Your task to perform on an android device: Search for flights from NYC to Tokyo Image 0: 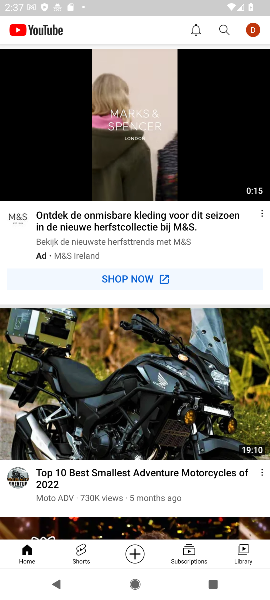
Step 0: press home button
Your task to perform on an android device: Search for flights from NYC to Tokyo Image 1: 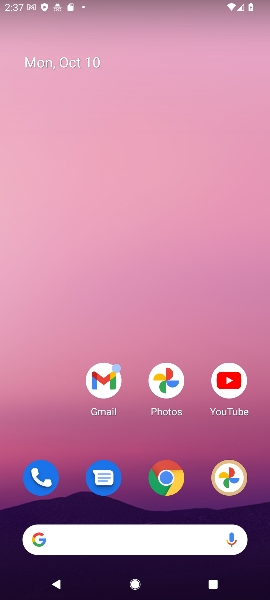
Step 1: click (161, 484)
Your task to perform on an android device: Search for flights from NYC to Tokyo Image 2: 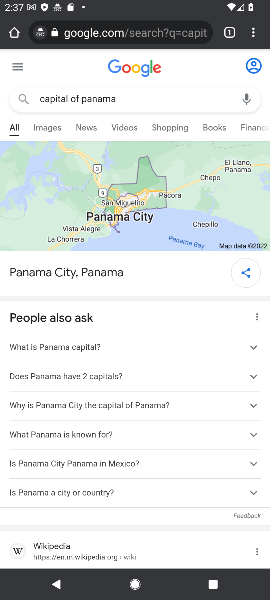
Step 2: click (163, 25)
Your task to perform on an android device: Search for flights from NYC to Tokyo Image 3: 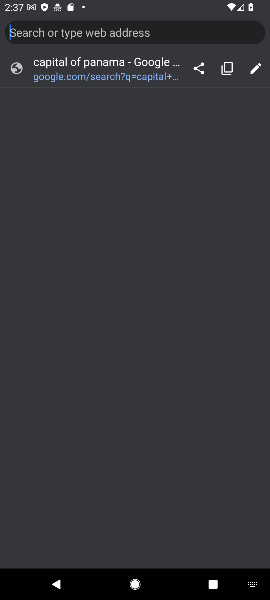
Step 3: type "flights from NYC to Tokyo"
Your task to perform on an android device: Search for flights from NYC to Tokyo Image 4: 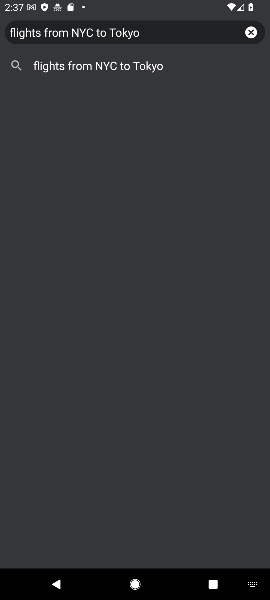
Step 4: click (53, 70)
Your task to perform on an android device: Search for flights from NYC to Tokyo Image 5: 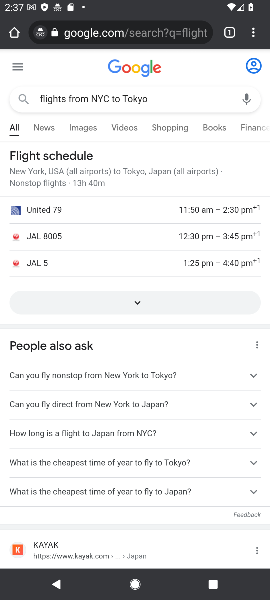
Step 5: click (40, 155)
Your task to perform on an android device: Search for flights from NYC to Tokyo Image 6: 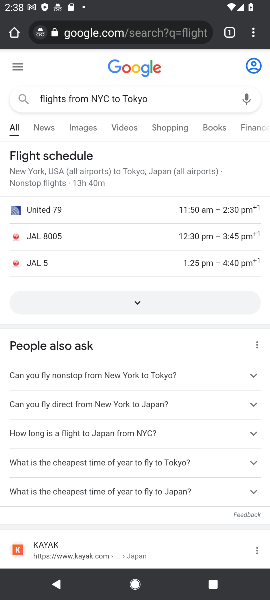
Step 6: click (49, 169)
Your task to perform on an android device: Search for flights from NYC to Tokyo Image 7: 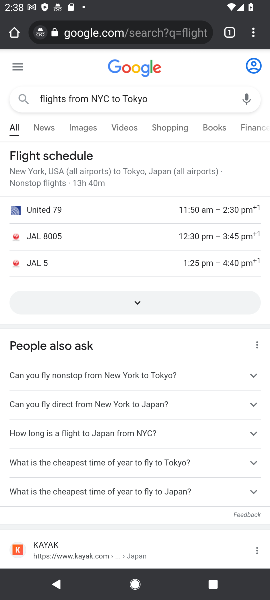
Step 7: click (129, 305)
Your task to perform on an android device: Search for flights from NYC to Tokyo Image 8: 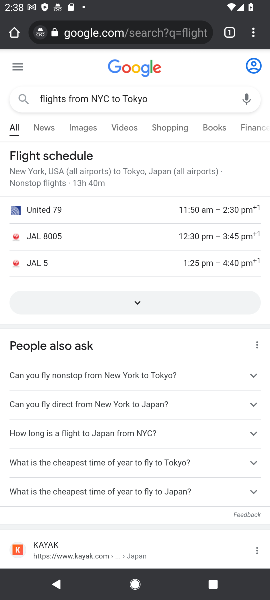
Step 8: click (129, 305)
Your task to perform on an android device: Search for flights from NYC to Tokyo Image 9: 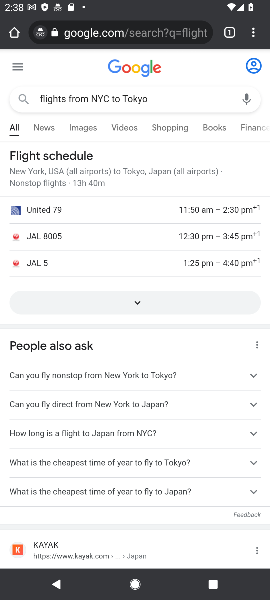
Step 9: click (129, 305)
Your task to perform on an android device: Search for flights from NYC to Tokyo Image 10: 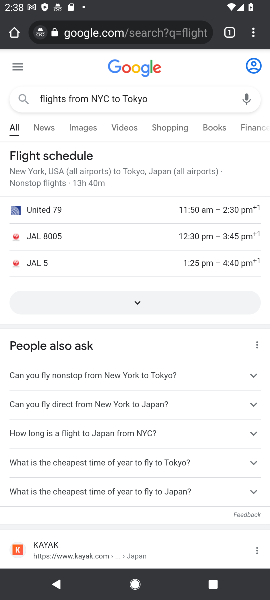
Step 10: click (48, 177)
Your task to perform on an android device: Search for flights from NYC to Tokyo Image 11: 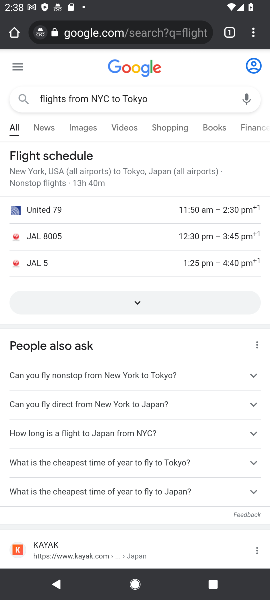
Step 11: task complete